Your task to perform on an android device: Search for the best rated electric lawnmower on Home Depot Image 0: 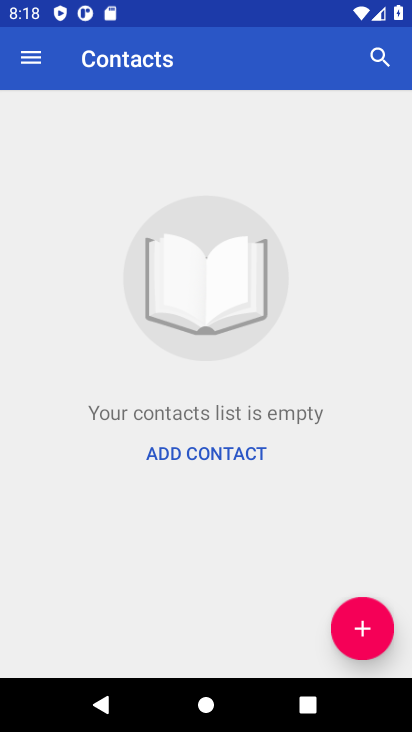
Step 0: press home button
Your task to perform on an android device: Search for the best rated electric lawnmower on Home Depot Image 1: 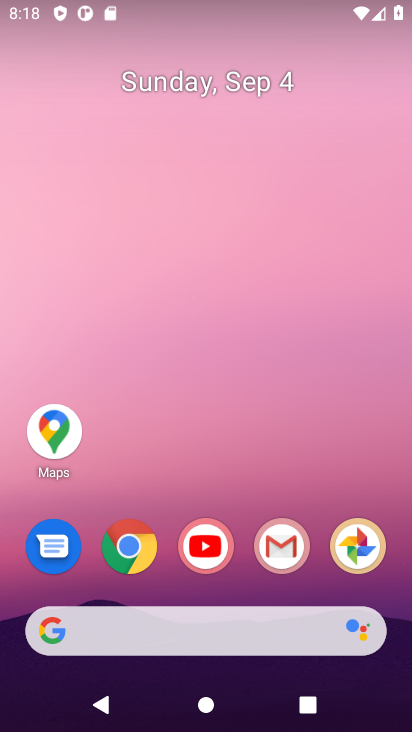
Step 1: click (142, 557)
Your task to perform on an android device: Search for the best rated electric lawnmower on Home Depot Image 2: 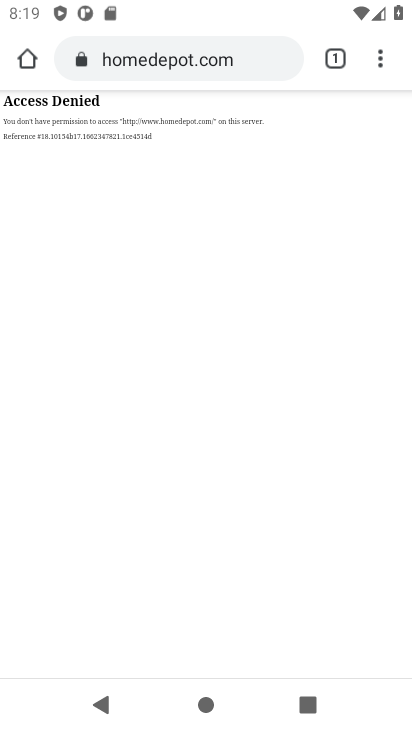
Step 2: press home button
Your task to perform on an android device: Search for the best rated electric lawnmower on Home Depot Image 3: 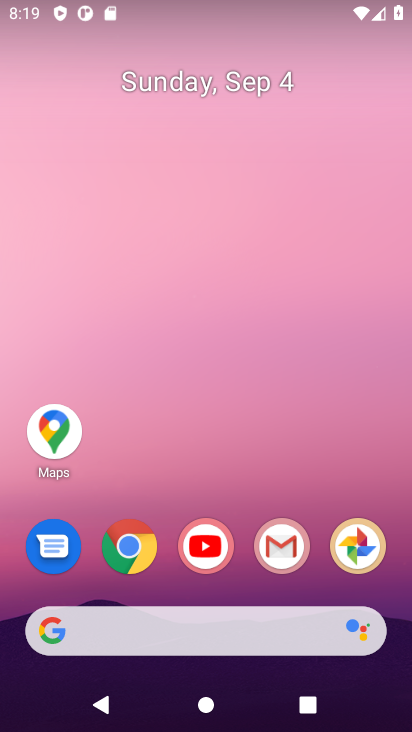
Step 3: click (135, 549)
Your task to perform on an android device: Search for the best rated electric lawnmower on Home Depot Image 4: 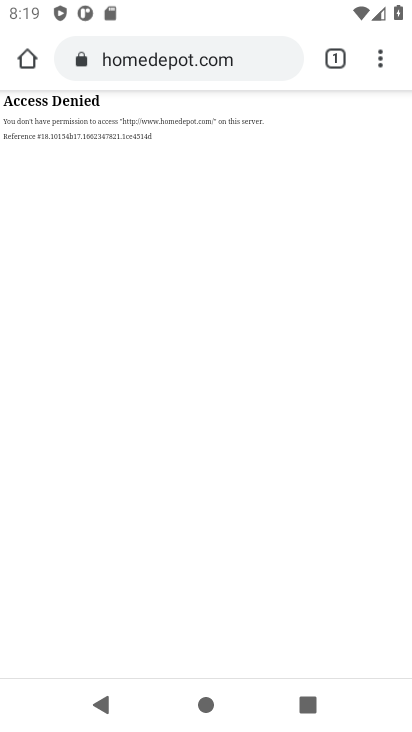
Step 4: click (129, 63)
Your task to perform on an android device: Search for the best rated electric lawnmower on Home Depot Image 5: 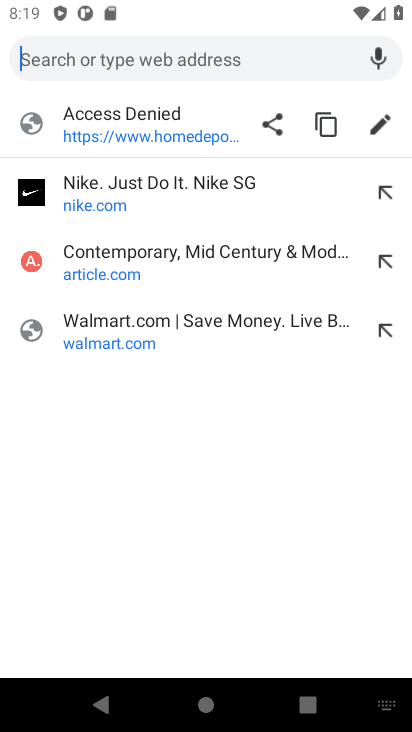
Step 5: type "Home Depot"
Your task to perform on an android device: Search for the best rated electric lawnmower on Home Depot Image 6: 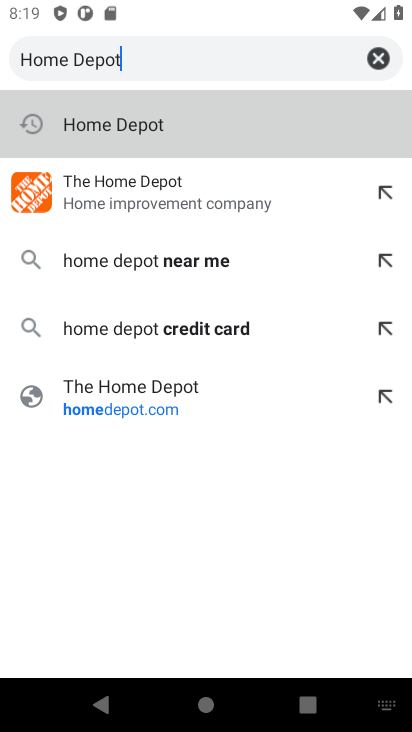
Step 6: click (84, 131)
Your task to perform on an android device: Search for the best rated electric lawnmower on Home Depot Image 7: 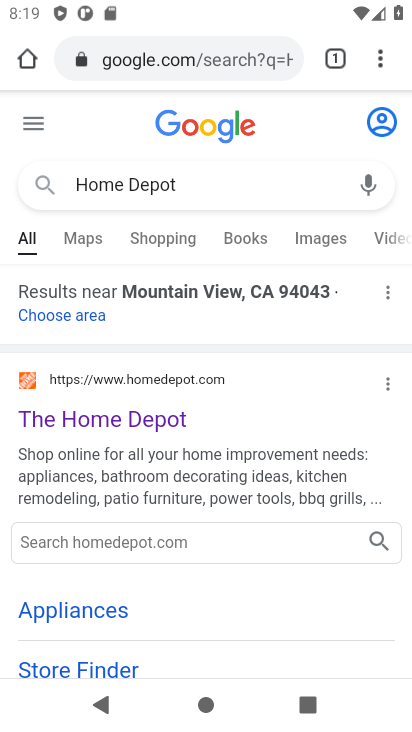
Step 7: click (111, 417)
Your task to perform on an android device: Search for the best rated electric lawnmower on Home Depot Image 8: 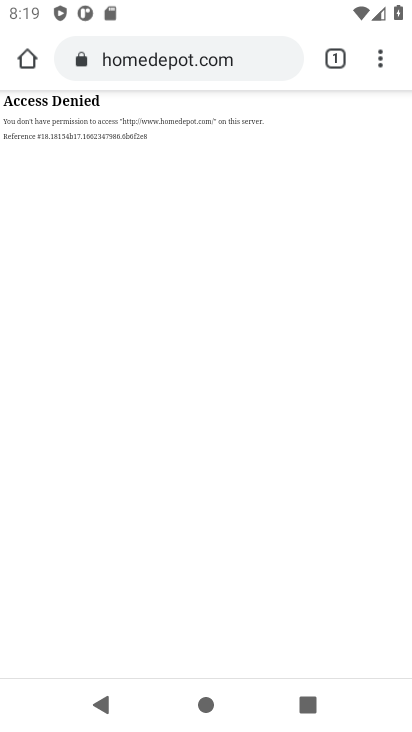
Step 8: task complete